Your task to perform on an android device: Search for good Chinese restaurants Image 0: 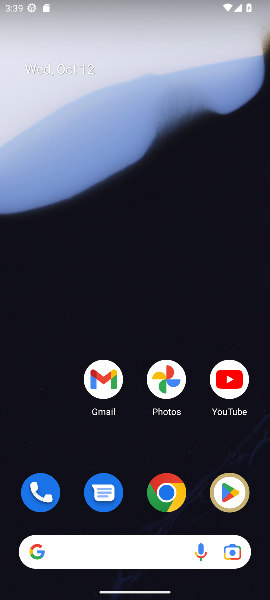
Step 0: click (171, 498)
Your task to perform on an android device: Search for good Chinese restaurants Image 1: 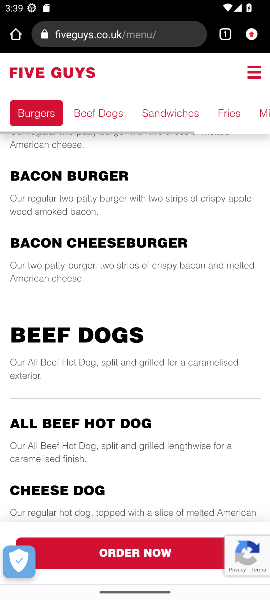
Step 1: click (115, 37)
Your task to perform on an android device: Search for good Chinese restaurants Image 2: 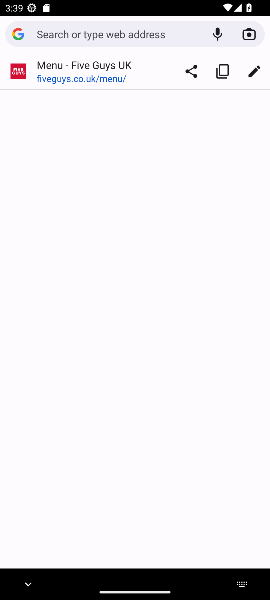
Step 2: type "good Chinese restaurants"
Your task to perform on an android device: Search for good Chinese restaurants Image 3: 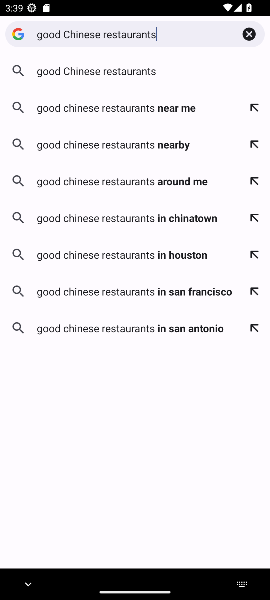
Step 3: click (79, 75)
Your task to perform on an android device: Search for good Chinese restaurants Image 4: 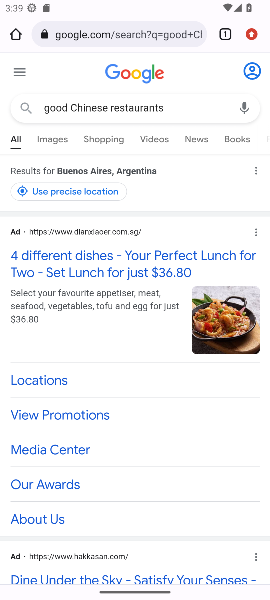
Step 4: task complete